Your task to perform on an android device: set default search engine in the chrome app Image 0: 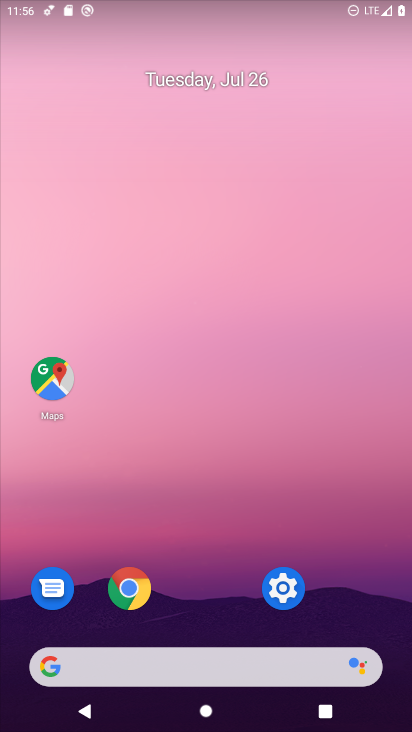
Step 0: click (111, 585)
Your task to perform on an android device: set default search engine in the chrome app Image 1: 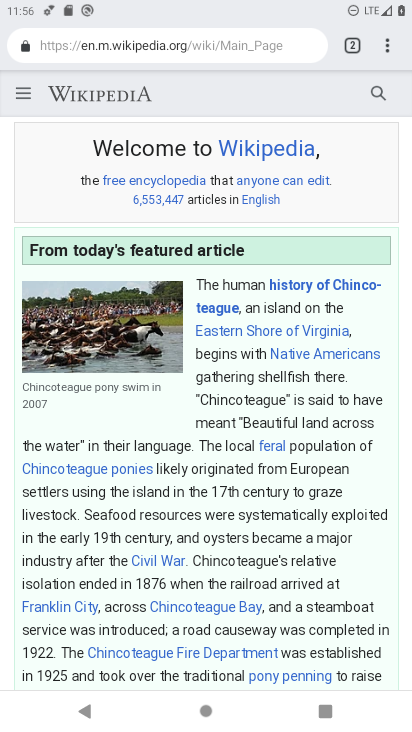
Step 1: click (383, 50)
Your task to perform on an android device: set default search engine in the chrome app Image 2: 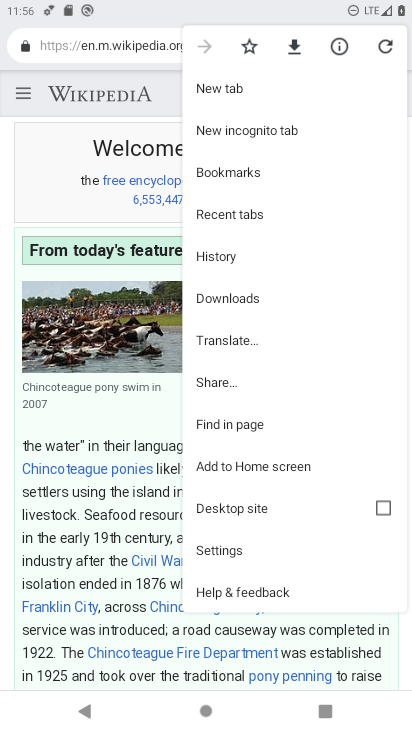
Step 2: click (226, 554)
Your task to perform on an android device: set default search engine in the chrome app Image 3: 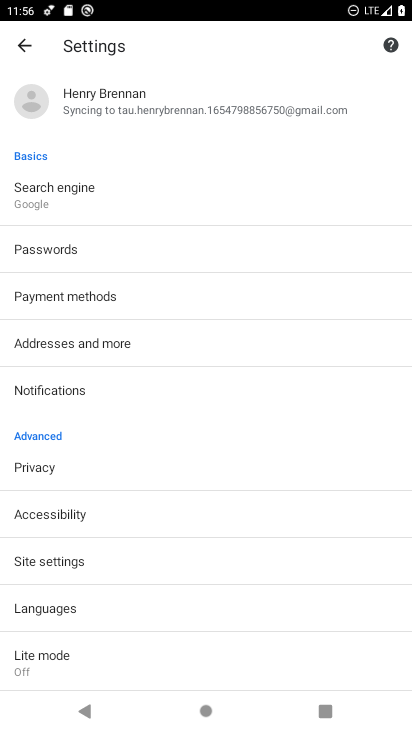
Step 3: click (69, 187)
Your task to perform on an android device: set default search engine in the chrome app Image 4: 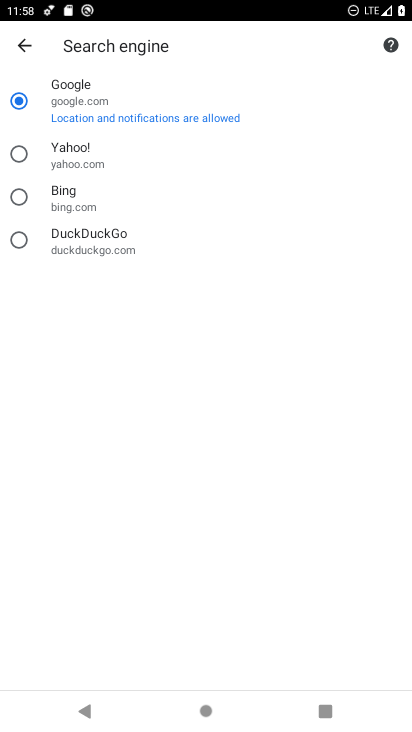
Step 4: task complete